Your task to perform on an android device: Go to CNN.com Image 0: 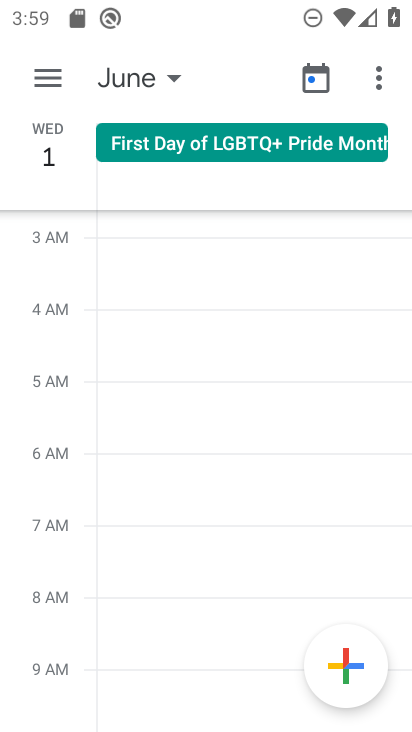
Step 0: press home button
Your task to perform on an android device: Go to CNN.com Image 1: 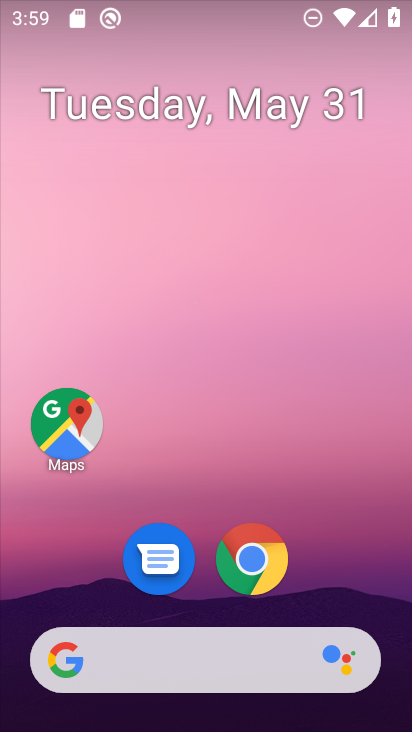
Step 1: click (251, 568)
Your task to perform on an android device: Go to CNN.com Image 2: 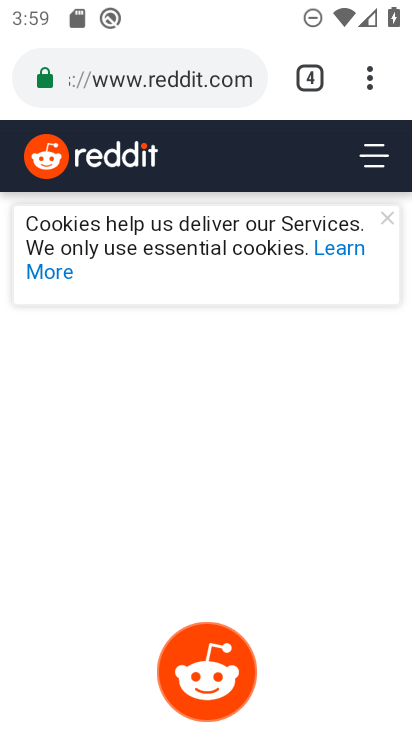
Step 2: click (371, 86)
Your task to perform on an android device: Go to CNN.com Image 3: 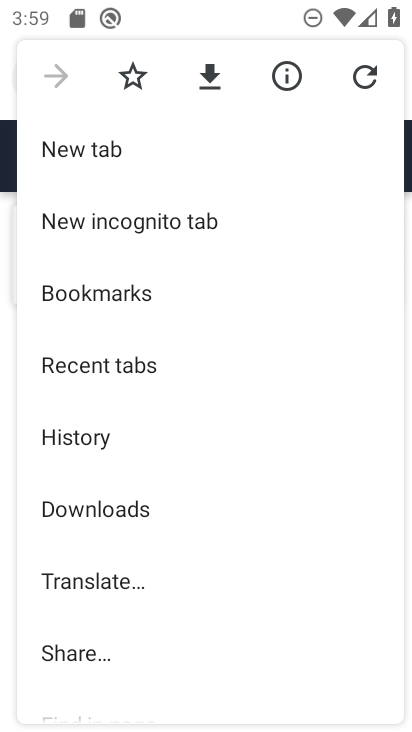
Step 3: click (88, 144)
Your task to perform on an android device: Go to CNN.com Image 4: 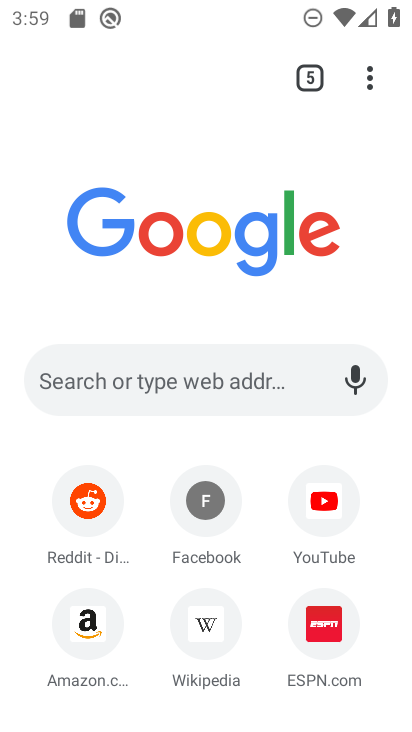
Step 4: click (246, 380)
Your task to perform on an android device: Go to CNN.com Image 5: 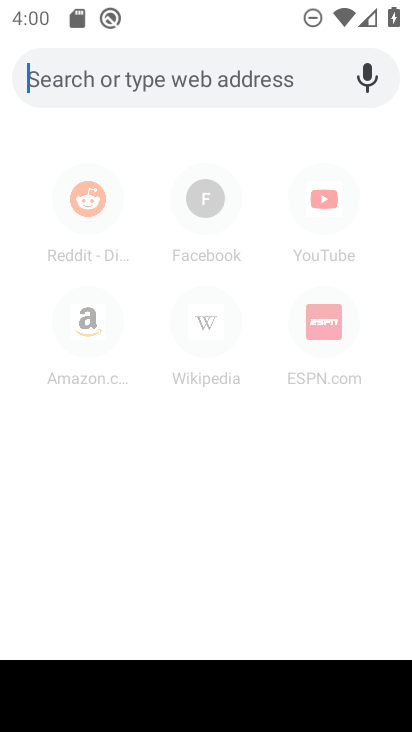
Step 5: type "CNN.com"
Your task to perform on an android device: Go to CNN.com Image 6: 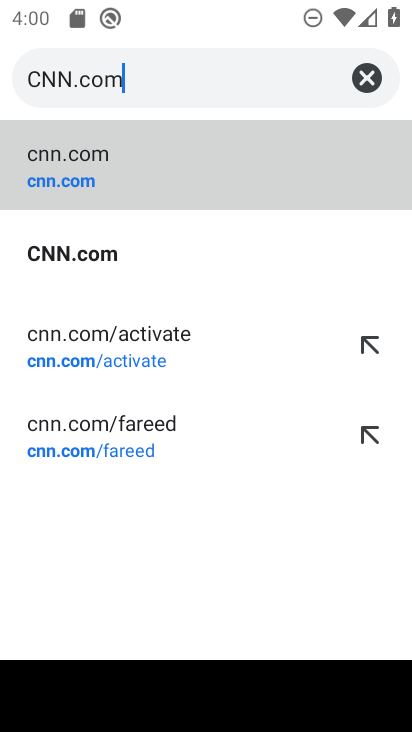
Step 6: click (71, 170)
Your task to perform on an android device: Go to CNN.com Image 7: 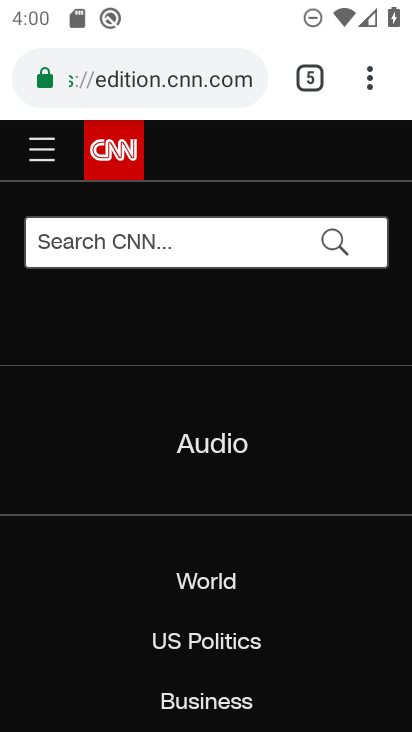
Step 7: task complete